Your task to perform on an android device: turn off wifi Image 0: 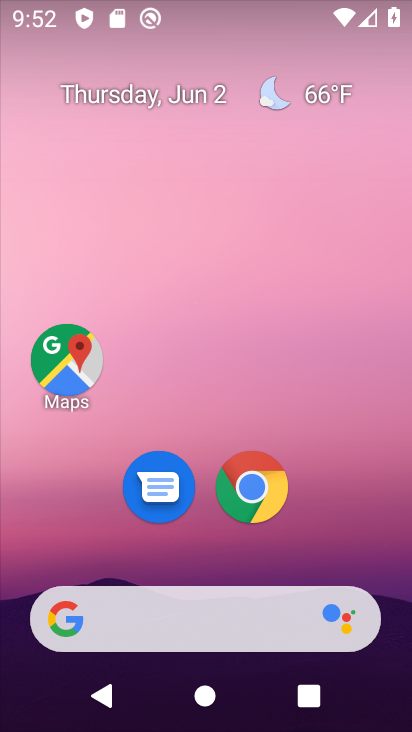
Step 0: drag from (234, 728) to (180, 7)
Your task to perform on an android device: turn off wifi Image 1: 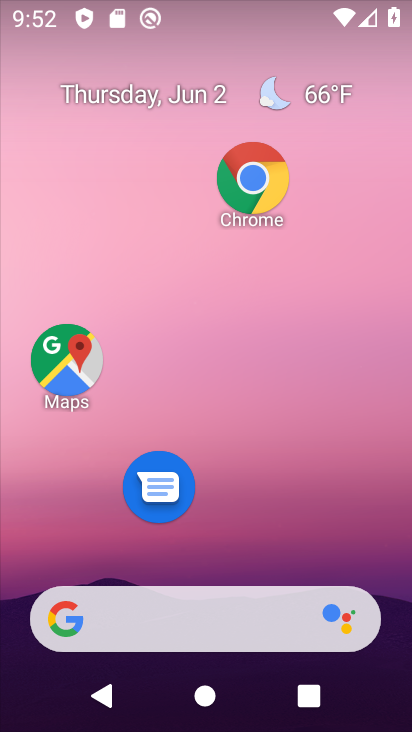
Step 1: drag from (234, 711) to (237, 37)
Your task to perform on an android device: turn off wifi Image 2: 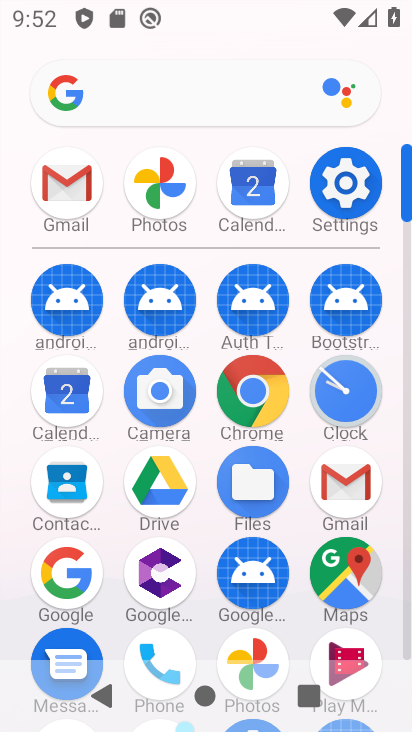
Step 2: click (351, 187)
Your task to perform on an android device: turn off wifi Image 3: 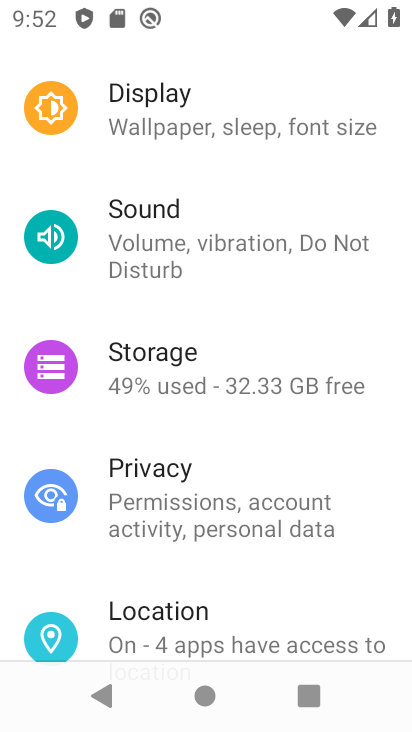
Step 3: drag from (262, 125) to (207, 582)
Your task to perform on an android device: turn off wifi Image 4: 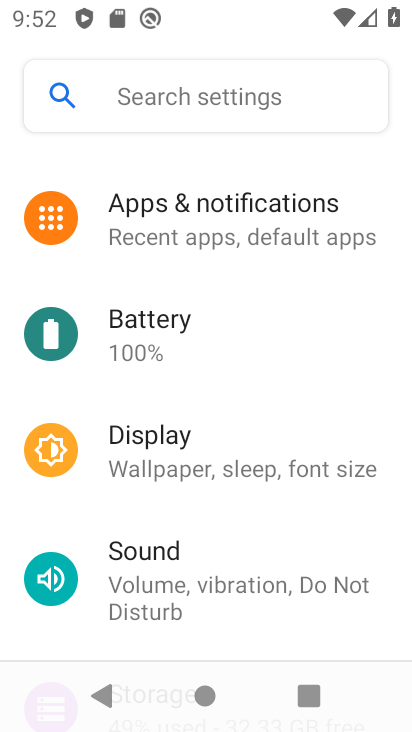
Step 4: drag from (226, 159) to (234, 617)
Your task to perform on an android device: turn off wifi Image 5: 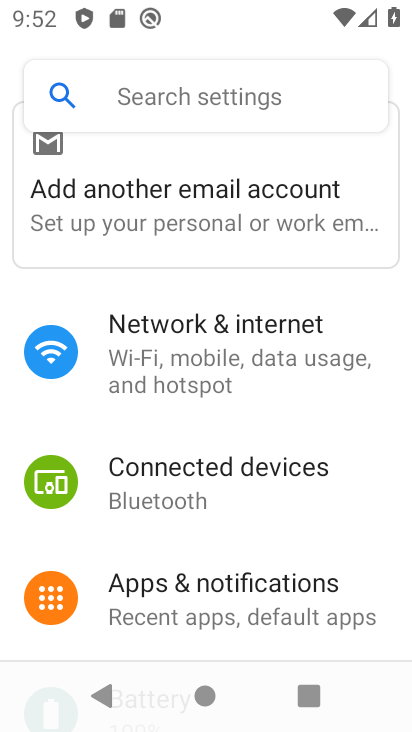
Step 5: click (177, 354)
Your task to perform on an android device: turn off wifi Image 6: 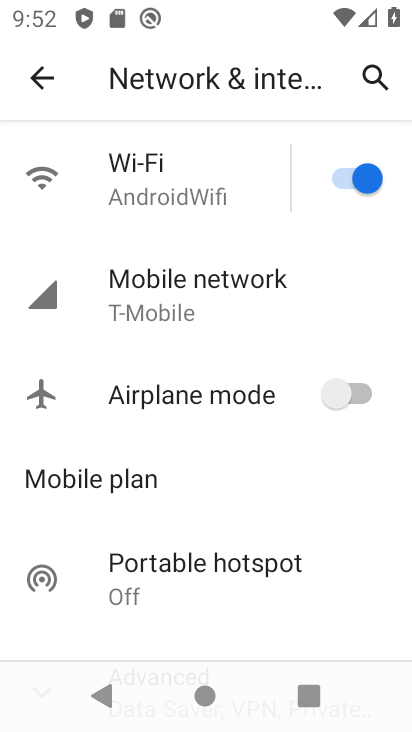
Step 6: click (342, 176)
Your task to perform on an android device: turn off wifi Image 7: 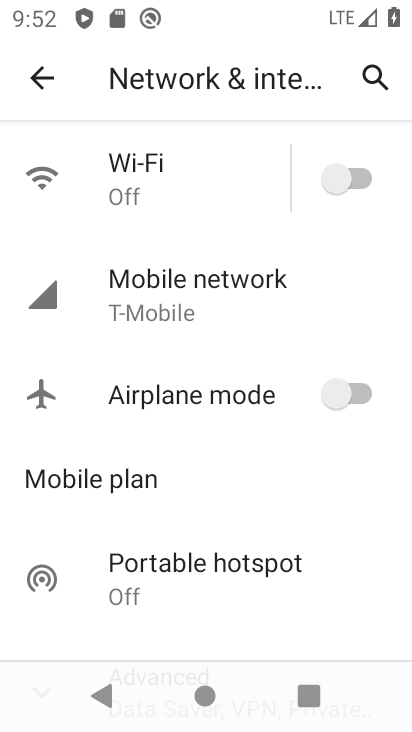
Step 7: task complete